Your task to perform on an android device: Show the shopping cart on walmart.com. Search for "macbook air" on walmart.com, select the first entry, add it to the cart, then select checkout. Image 0: 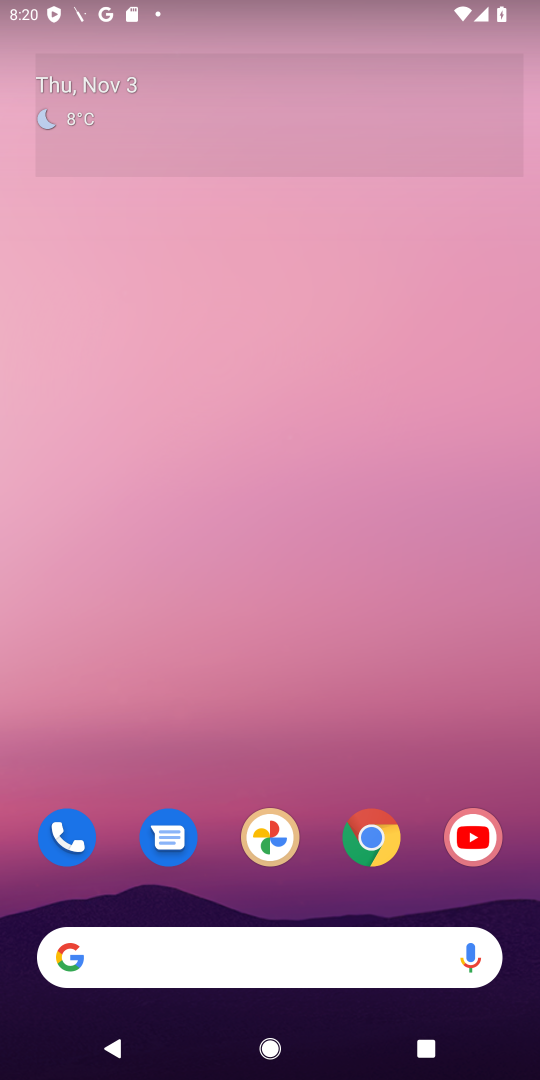
Step 0: click (380, 836)
Your task to perform on an android device: Show the shopping cart on walmart.com. Search for "macbook air" on walmart.com, select the first entry, add it to the cart, then select checkout. Image 1: 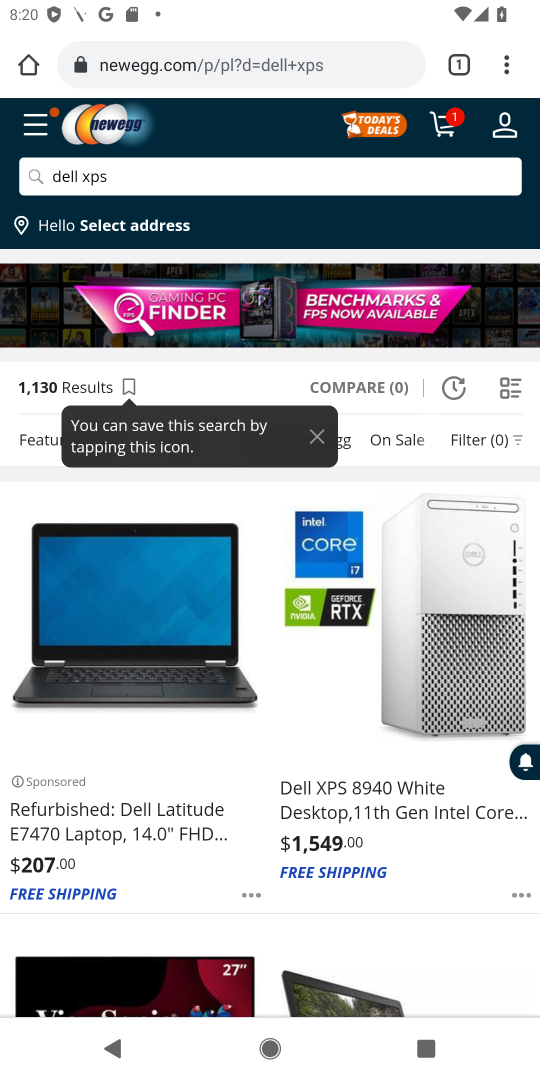
Step 1: click (280, 49)
Your task to perform on an android device: Show the shopping cart on walmart.com. Search for "macbook air" on walmart.com, select the first entry, add it to the cart, then select checkout. Image 2: 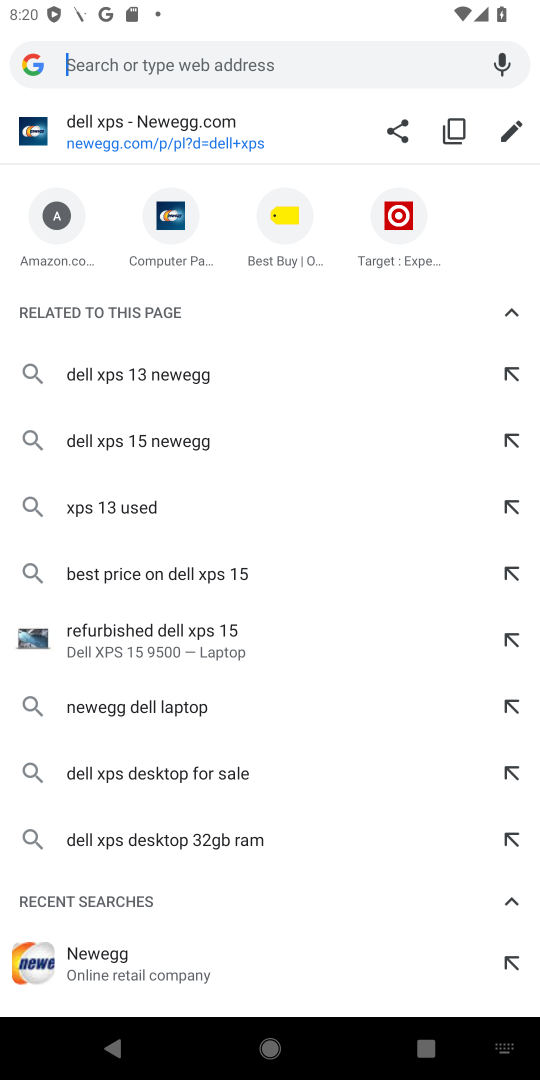
Step 2: drag from (226, 911) to (498, 203)
Your task to perform on an android device: Show the shopping cart on walmart.com. Search for "macbook air" on walmart.com, select the first entry, add it to the cart, then select checkout. Image 3: 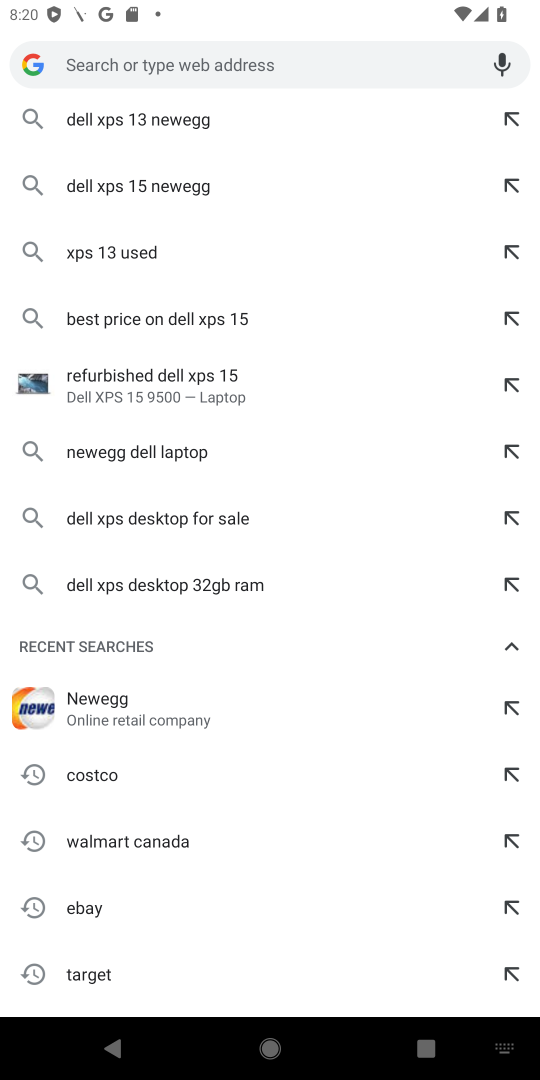
Step 3: click (105, 828)
Your task to perform on an android device: Show the shopping cart on walmart.com. Search for "macbook air" on walmart.com, select the first entry, add it to the cart, then select checkout. Image 4: 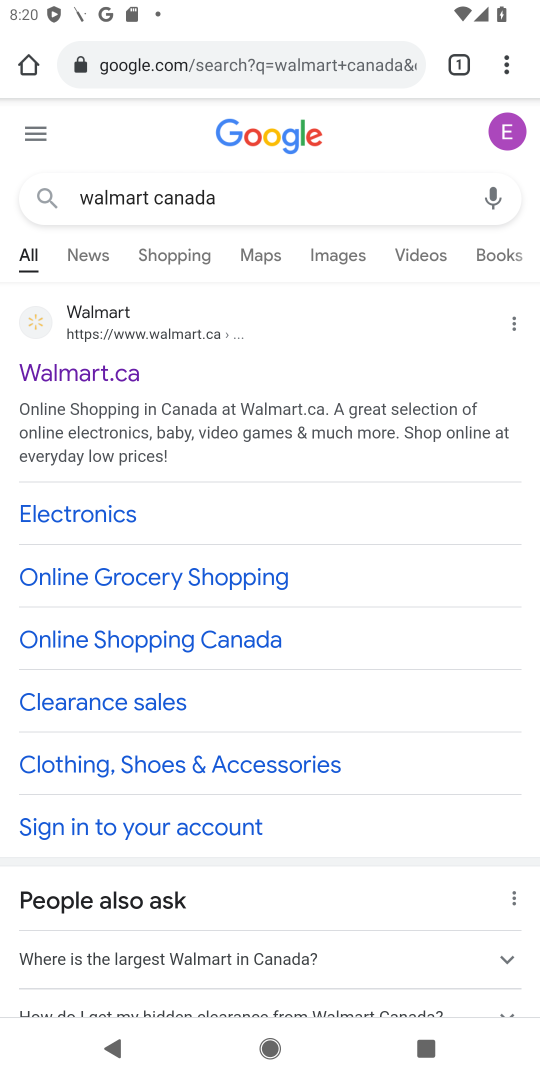
Step 4: click (123, 376)
Your task to perform on an android device: Show the shopping cart on walmart.com. Search for "macbook air" on walmart.com, select the first entry, add it to the cart, then select checkout. Image 5: 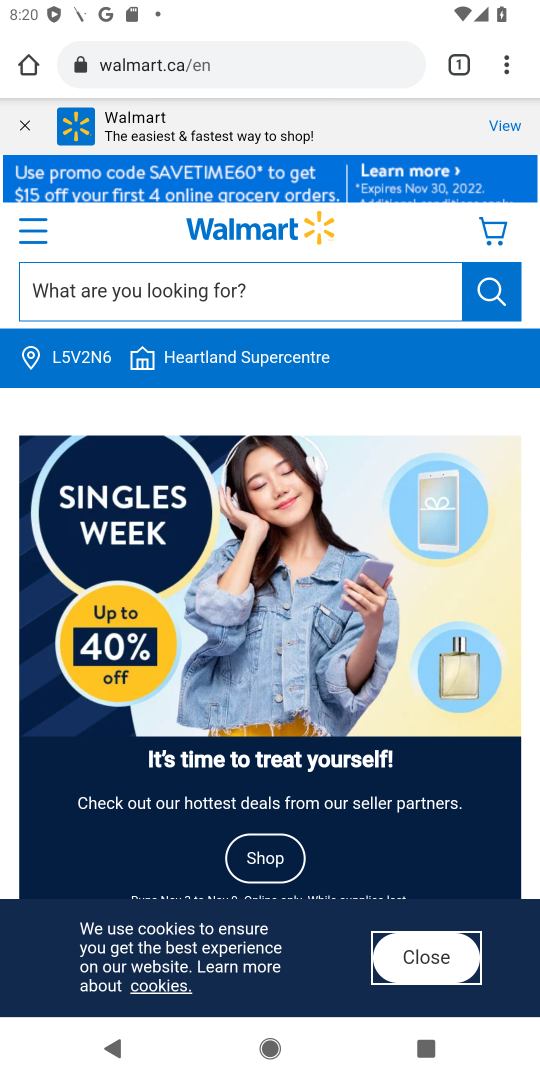
Step 5: click (246, 288)
Your task to perform on an android device: Show the shopping cart on walmart.com. Search for "macbook air" on walmart.com, select the first entry, add it to the cart, then select checkout. Image 6: 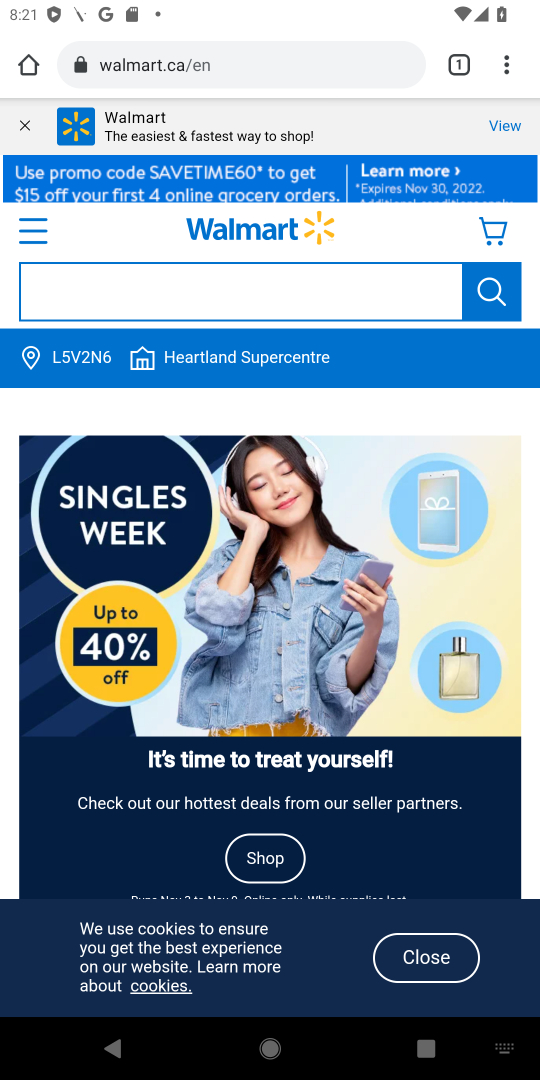
Step 6: type "macbook air"
Your task to perform on an android device: Show the shopping cart on walmart.com. Search for "macbook air" on walmart.com, select the first entry, add it to the cart, then select checkout. Image 7: 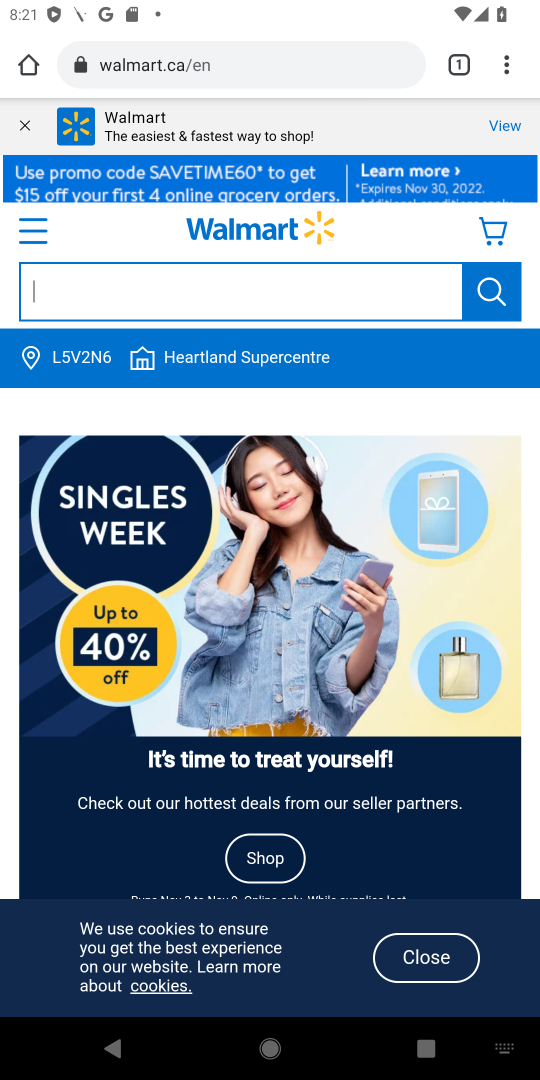
Step 7: press enter
Your task to perform on an android device: Show the shopping cart on walmart.com. Search for "macbook air" on walmart.com, select the first entry, add it to the cart, then select checkout. Image 8: 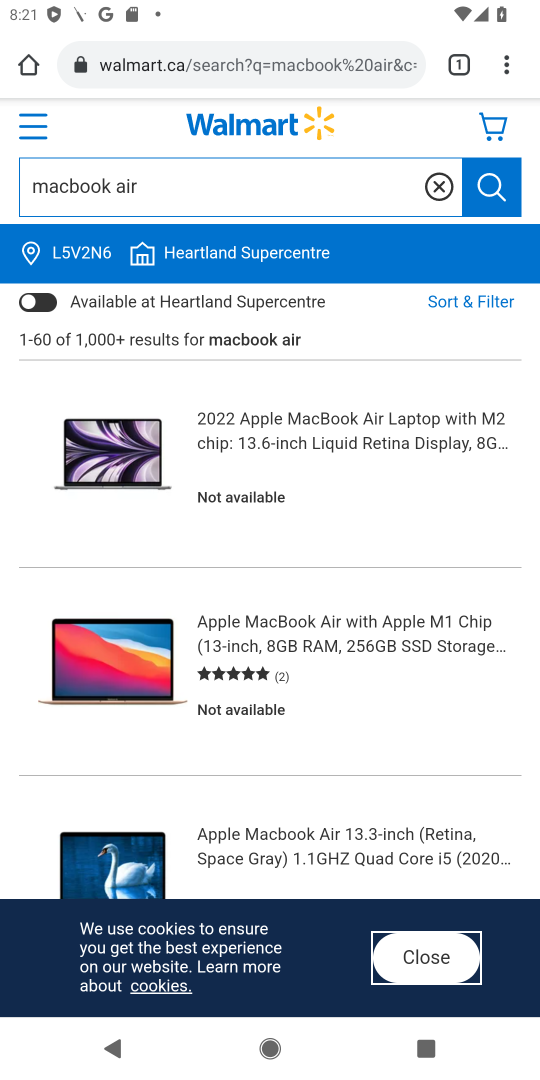
Step 8: click (311, 454)
Your task to perform on an android device: Show the shopping cart on walmart.com. Search for "macbook air" on walmart.com, select the first entry, add it to the cart, then select checkout. Image 9: 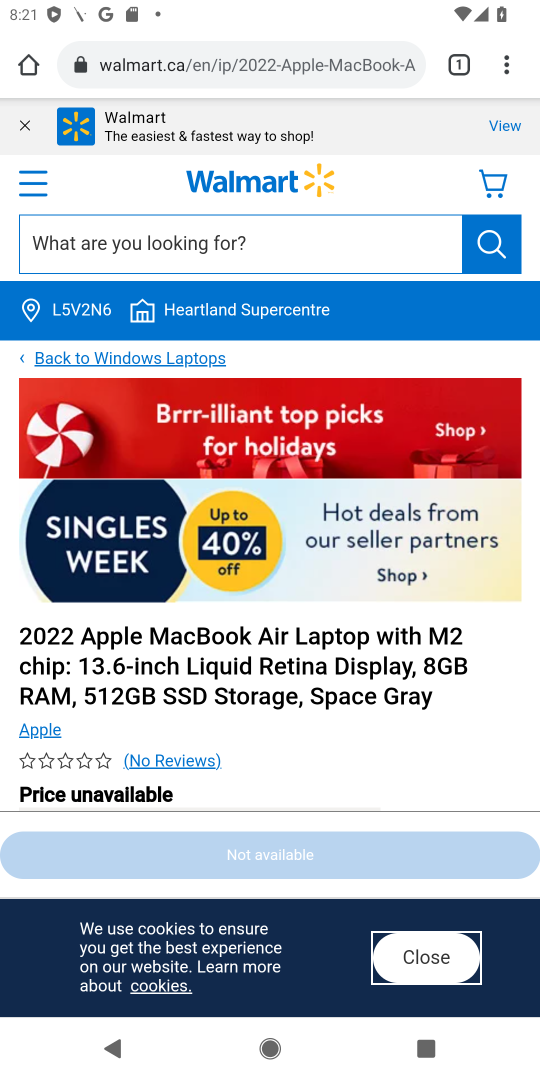
Step 9: task complete